Your task to perform on an android device: check storage Image 0: 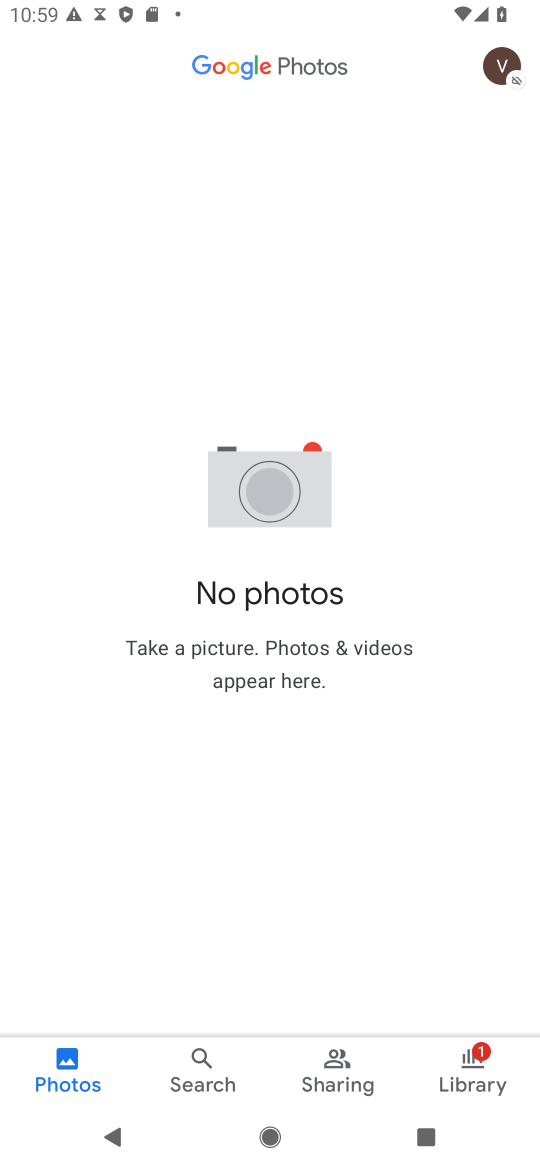
Step 0: press home button
Your task to perform on an android device: check storage Image 1: 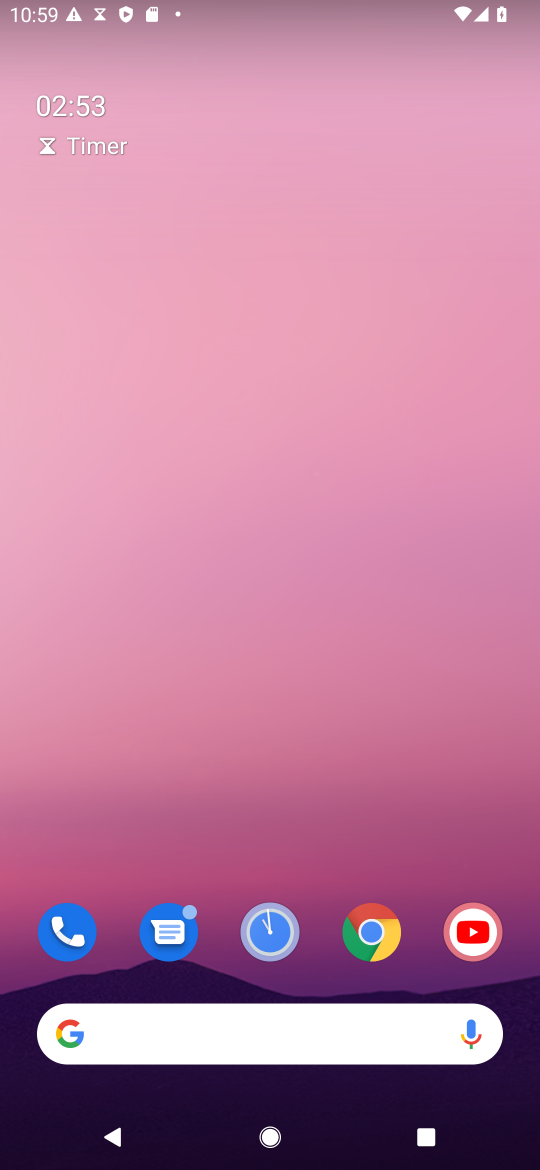
Step 1: drag from (236, 966) to (230, 111)
Your task to perform on an android device: check storage Image 2: 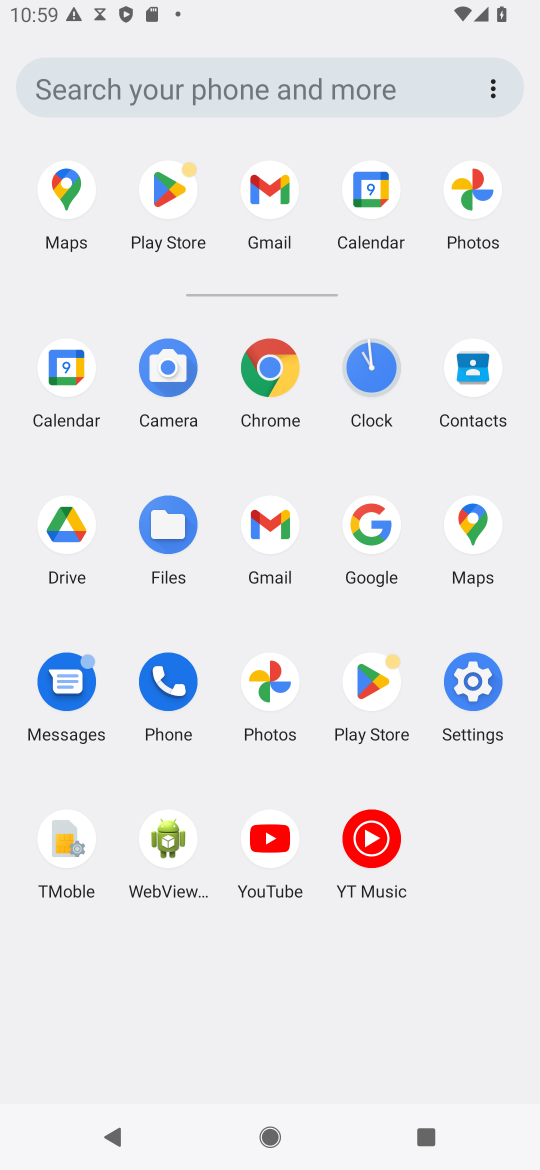
Step 2: click (476, 712)
Your task to perform on an android device: check storage Image 3: 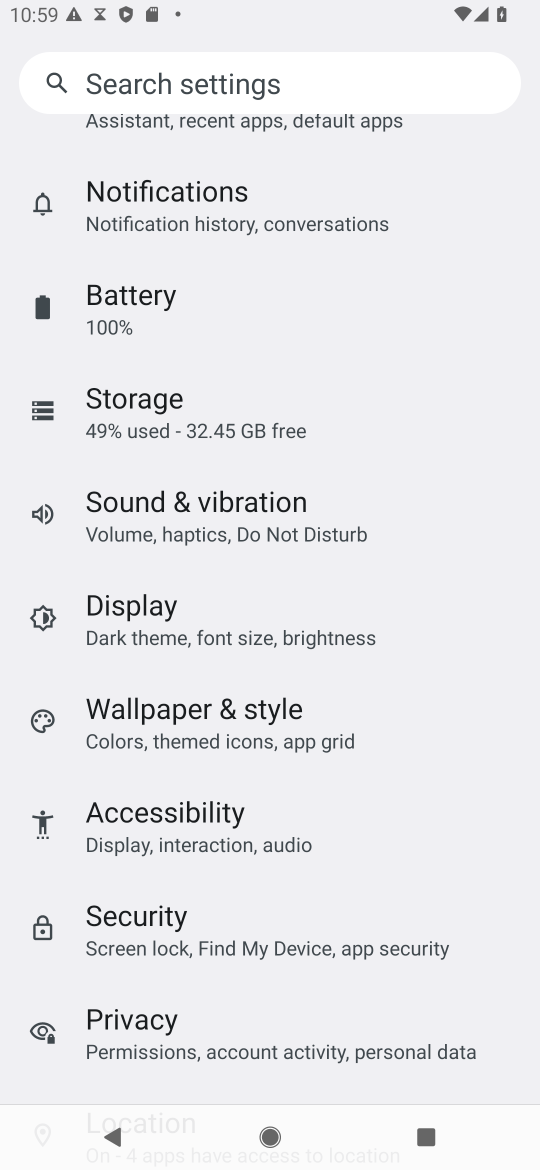
Step 3: click (196, 418)
Your task to perform on an android device: check storage Image 4: 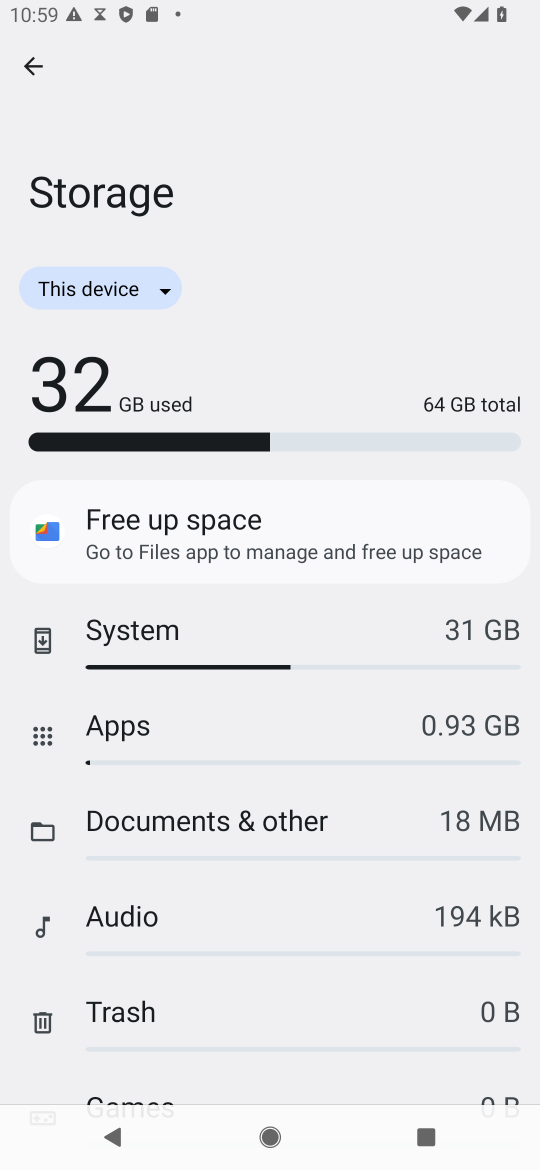
Step 4: task complete